Your task to perform on an android device: move a message to another label in the gmail app Image 0: 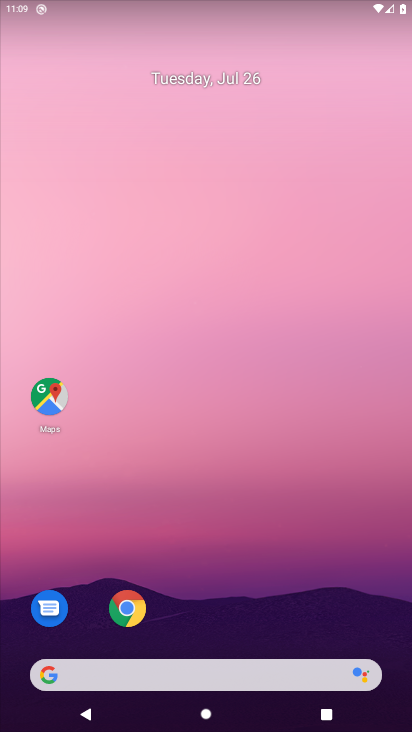
Step 0: drag from (192, 514) to (198, 138)
Your task to perform on an android device: move a message to another label in the gmail app Image 1: 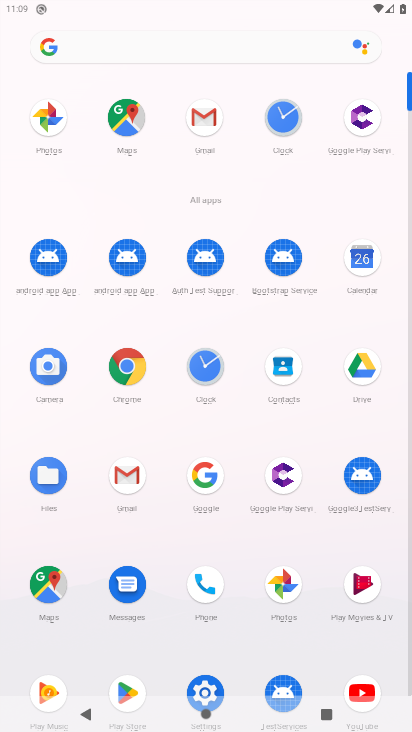
Step 1: click (135, 477)
Your task to perform on an android device: move a message to another label in the gmail app Image 2: 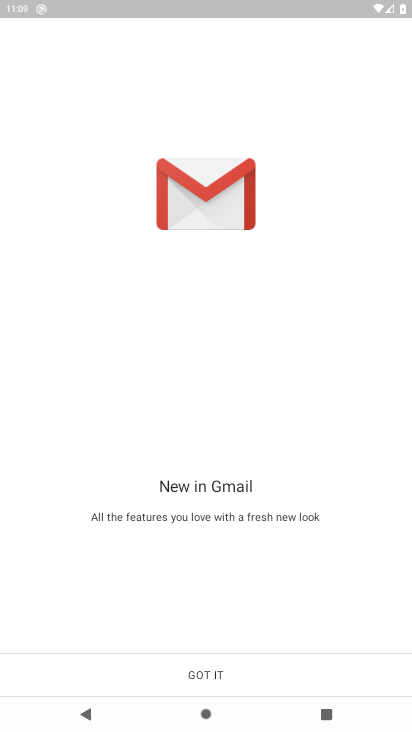
Step 2: click (189, 673)
Your task to perform on an android device: move a message to another label in the gmail app Image 3: 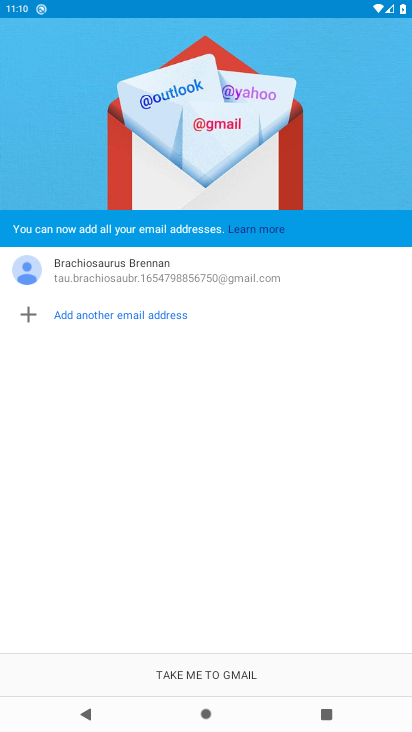
Step 3: drag from (168, 543) to (192, 411)
Your task to perform on an android device: move a message to another label in the gmail app Image 4: 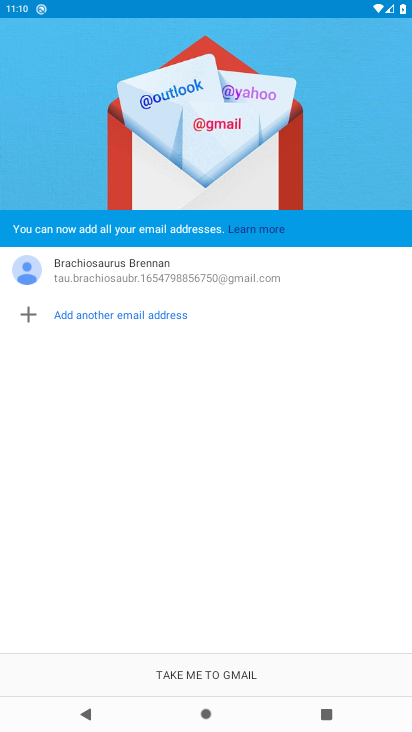
Step 4: drag from (277, 486) to (277, 285)
Your task to perform on an android device: move a message to another label in the gmail app Image 5: 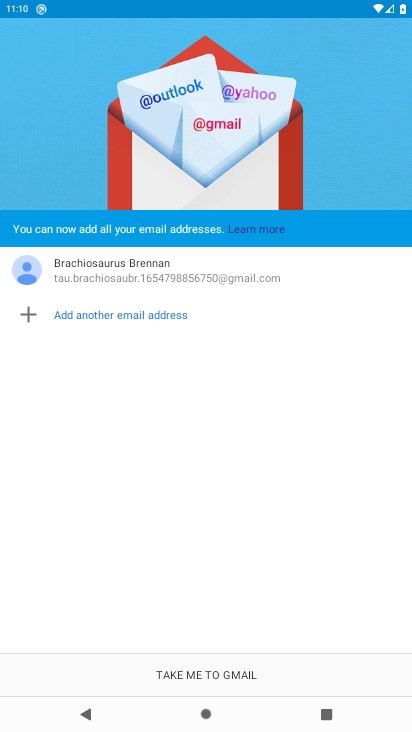
Step 5: click (154, 674)
Your task to perform on an android device: move a message to another label in the gmail app Image 6: 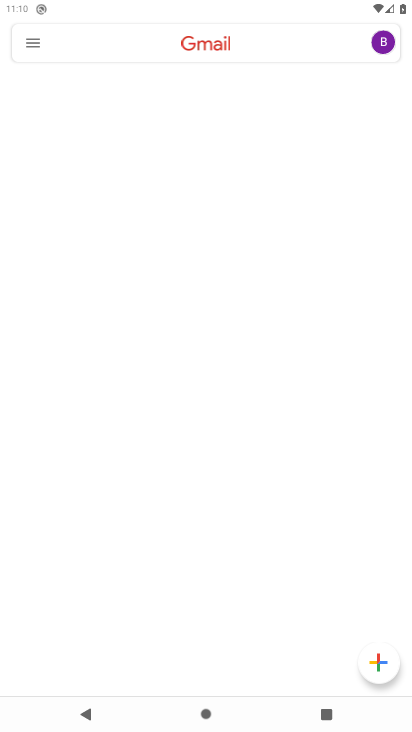
Step 6: drag from (199, 534) to (219, 54)
Your task to perform on an android device: move a message to another label in the gmail app Image 7: 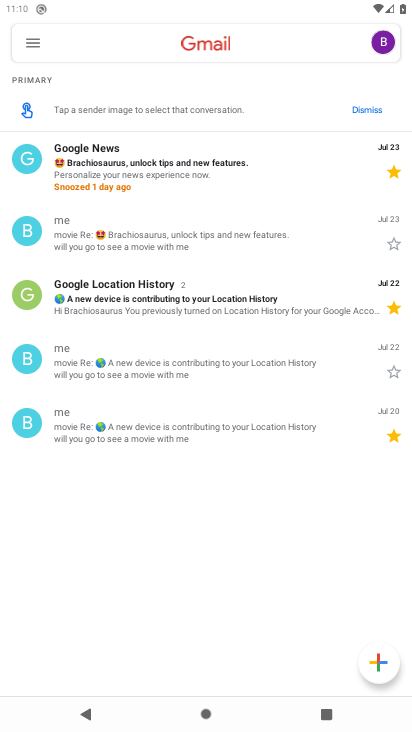
Step 7: drag from (244, 283) to (278, 677)
Your task to perform on an android device: move a message to another label in the gmail app Image 8: 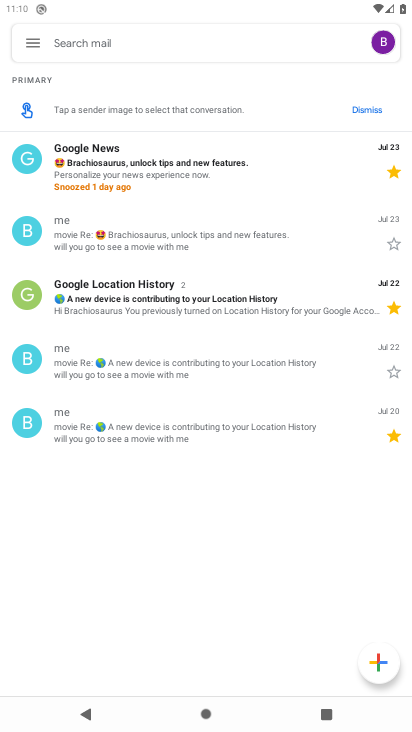
Step 8: drag from (250, 201) to (212, 506)
Your task to perform on an android device: move a message to another label in the gmail app Image 9: 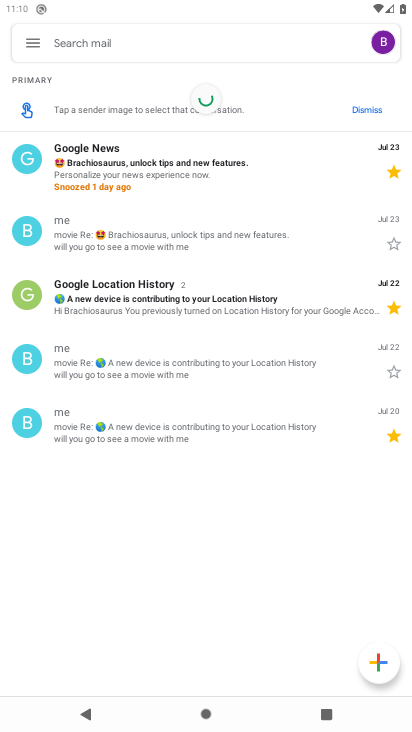
Step 9: click (176, 176)
Your task to perform on an android device: move a message to another label in the gmail app Image 10: 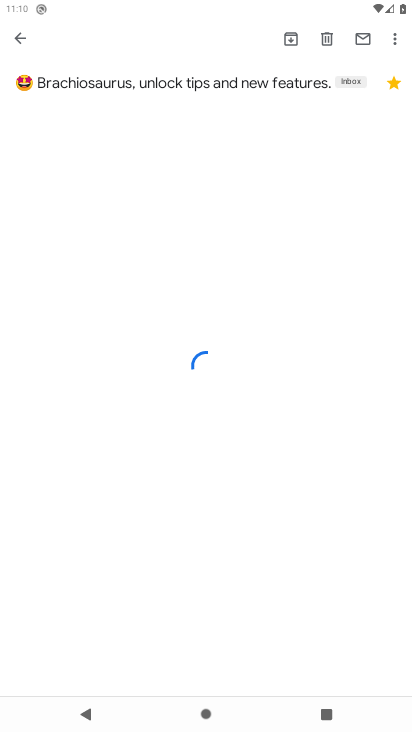
Step 10: click (385, 76)
Your task to perform on an android device: move a message to another label in the gmail app Image 11: 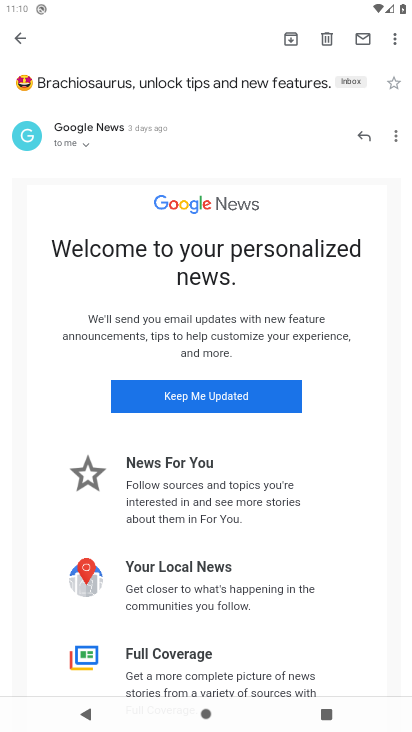
Step 11: task complete